Your task to perform on an android device: Open display settings Image 0: 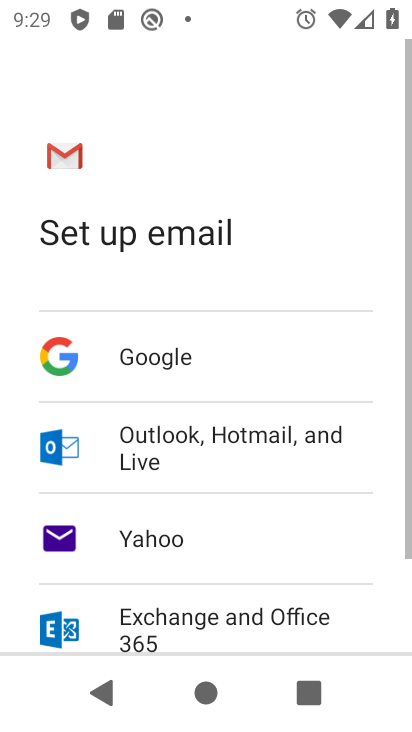
Step 0: press home button
Your task to perform on an android device: Open display settings Image 1: 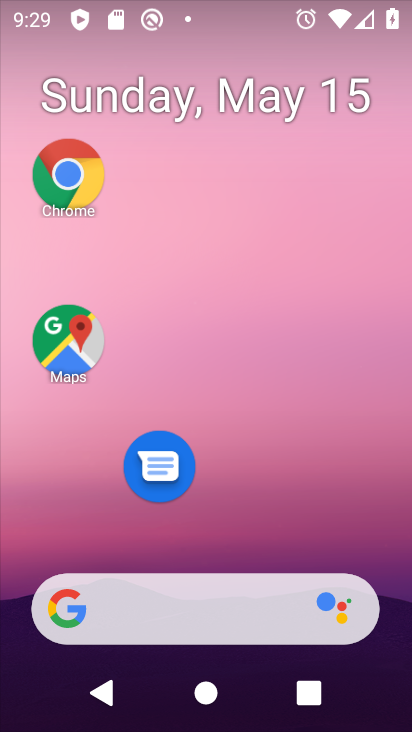
Step 1: drag from (328, 356) to (308, 5)
Your task to perform on an android device: Open display settings Image 2: 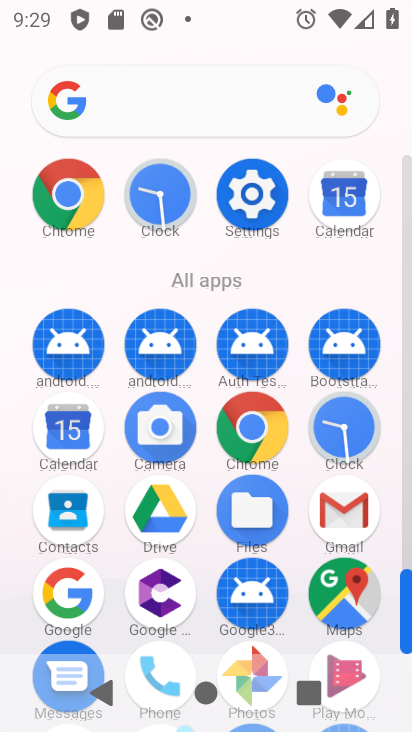
Step 2: click (244, 195)
Your task to perform on an android device: Open display settings Image 3: 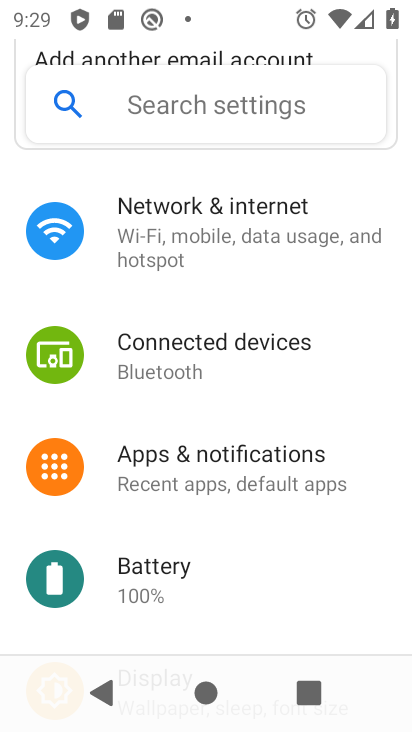
Step 3: drag from (233, 239) to (305, 0)
Your task to perform on an android device: Open display settings Image 4: 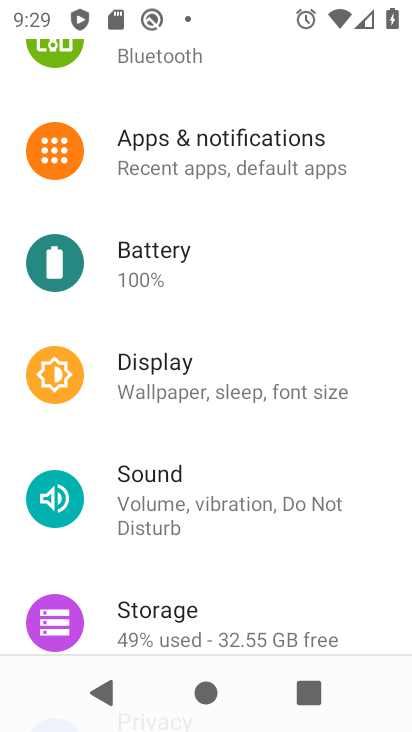
Step 4: click (198, 361)
Your task to perform on an android device: Open display settings Image 5: 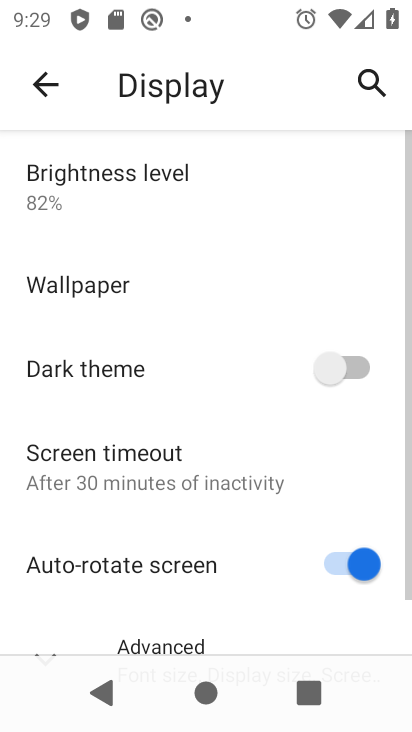
Step 5: task complete